Your task to perform on an android device: What's on my calendar today? Image 0: 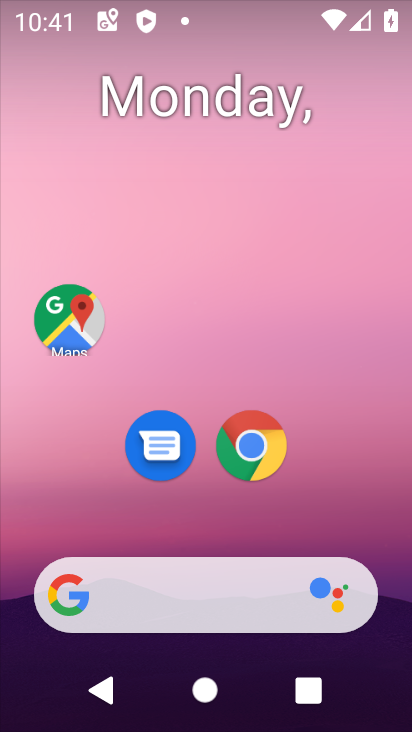
Step 0: drag from (239, 523) to (293, 185)
Your task to perform on an android device: What's on my calendar today? Image 1: 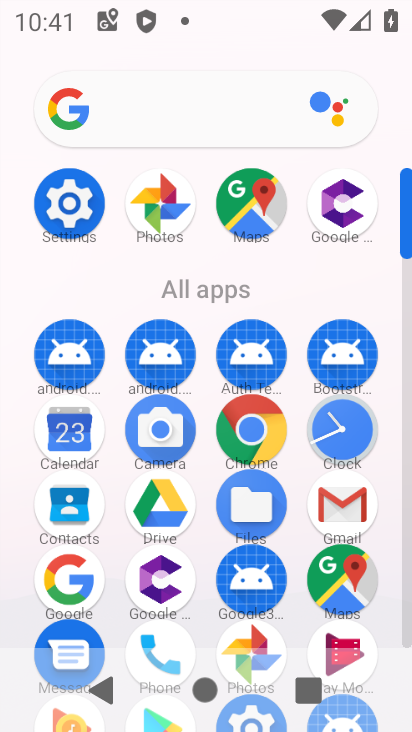
Step 1: click (68, 427)
Your task to perform on an android device: What's on my calendar today? Image 2: 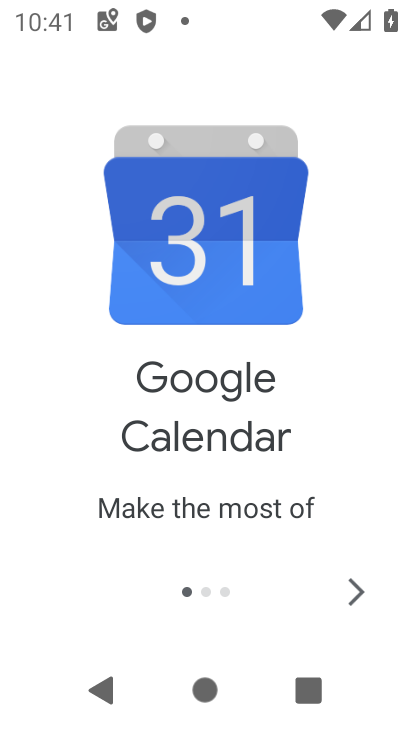
Step 2: click (350, 600)
Your task to perform on an android device: What's on my calendar today? Image 3: 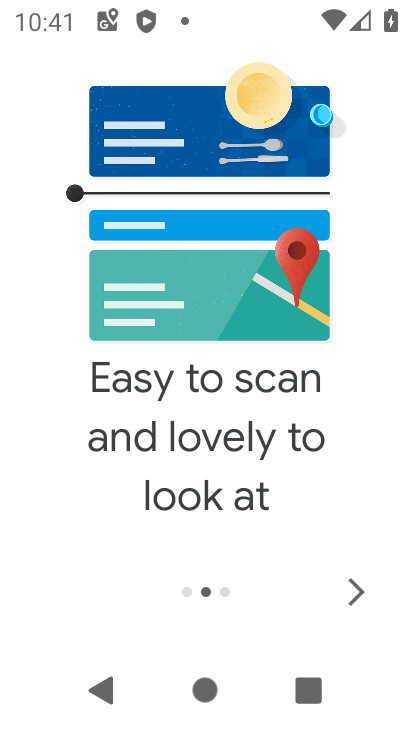
Step 3: click (350, 599)
Your task to perform on an android device: What's on my calendar today? Image 4: 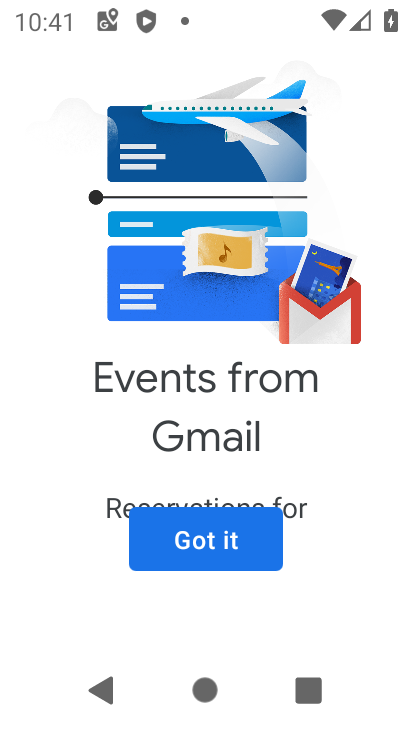
Step 4: click (231, 544)
Your task to perform on an android device: What's on my calendar today? Image 5: 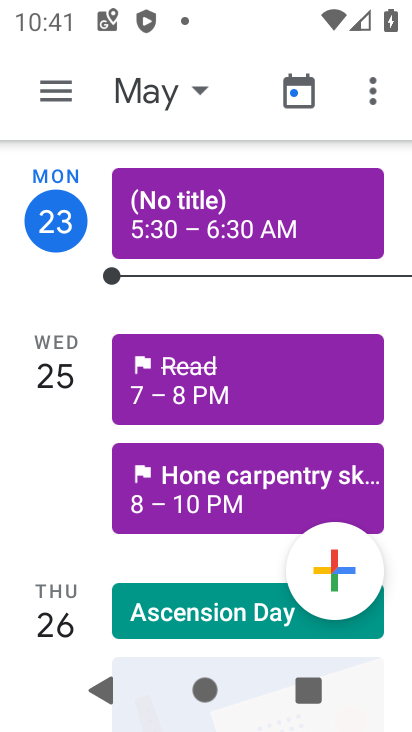
Step 5: click (174, 95)
Your task to perform on an android device: What's on my calendar today? Image 6: 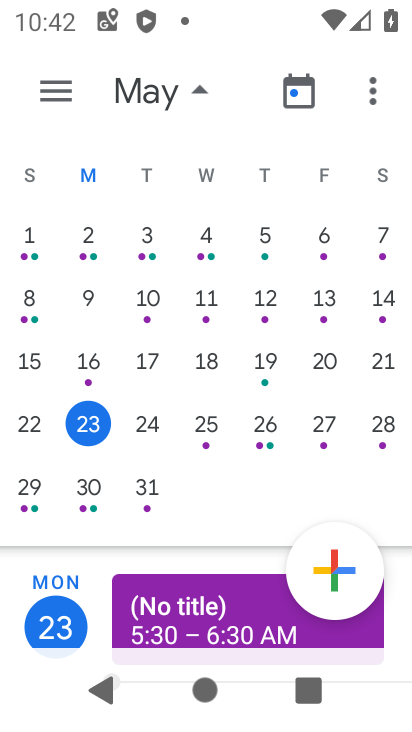
Step 6: task complete